Your task to perform on an android device: How do I get to the nearest Starbucks? Image 0: 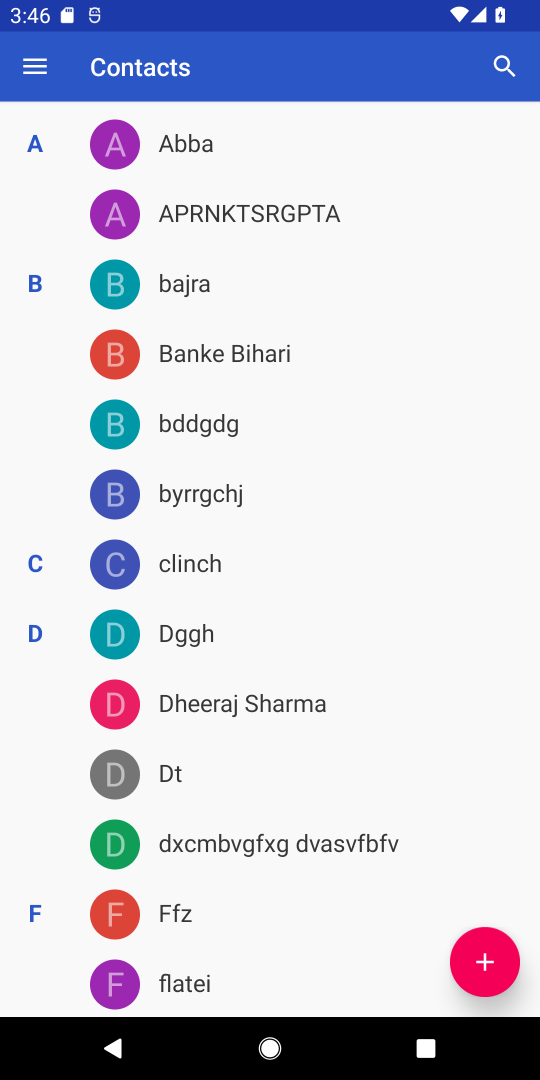
Step 0: press home button
Your task to perform on an android device: How do I get to the nearest Starbucks? Image 1: 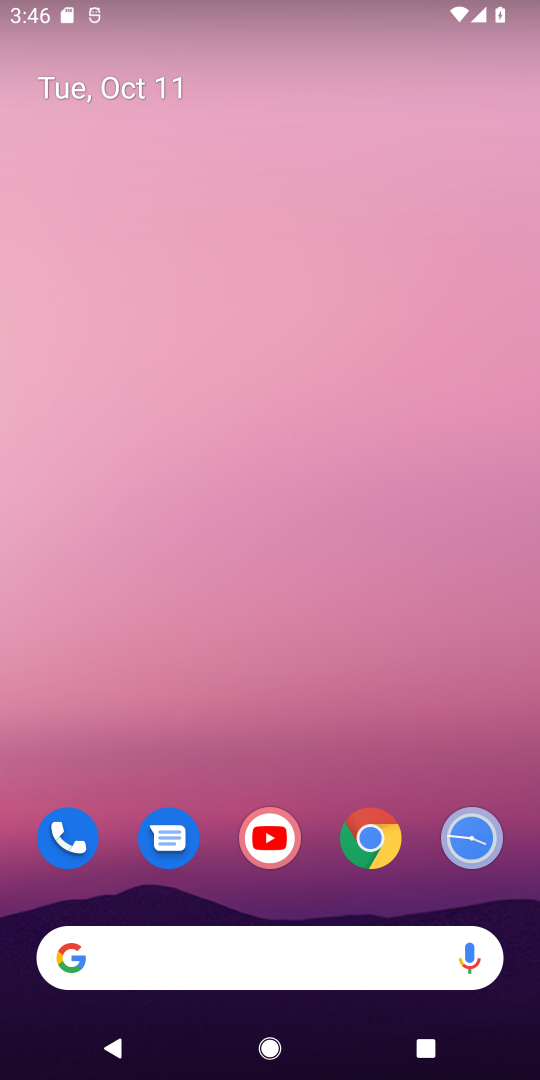
Step 1: click (260, 948)
Your task to perform on an android device: How do I get to the nearest Starbucks? Image 2: 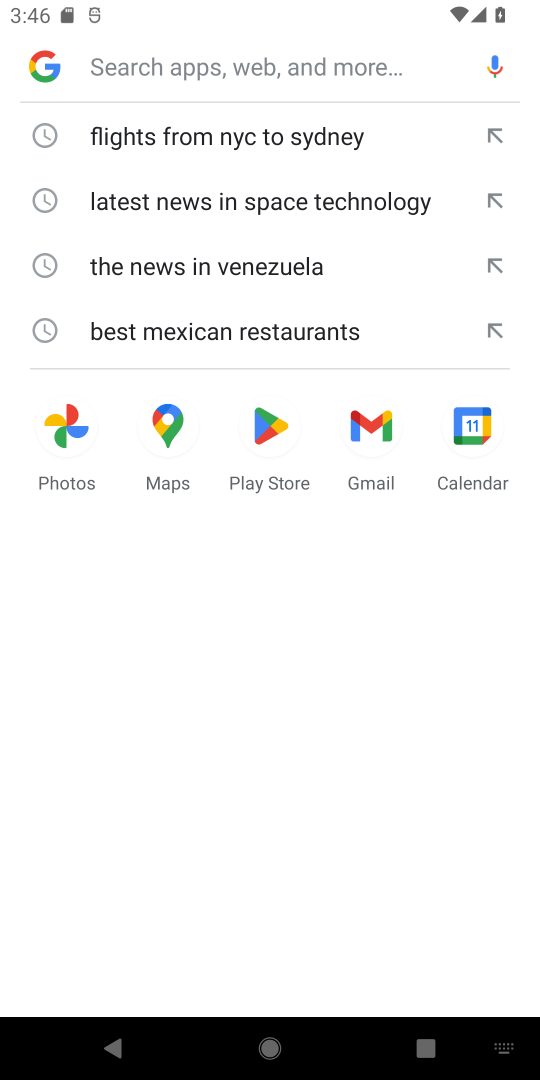
Step 2: type "nearest Starbucks"
Your task to perform on an android device: How do I get to the nearest Starbucks? Image 3: 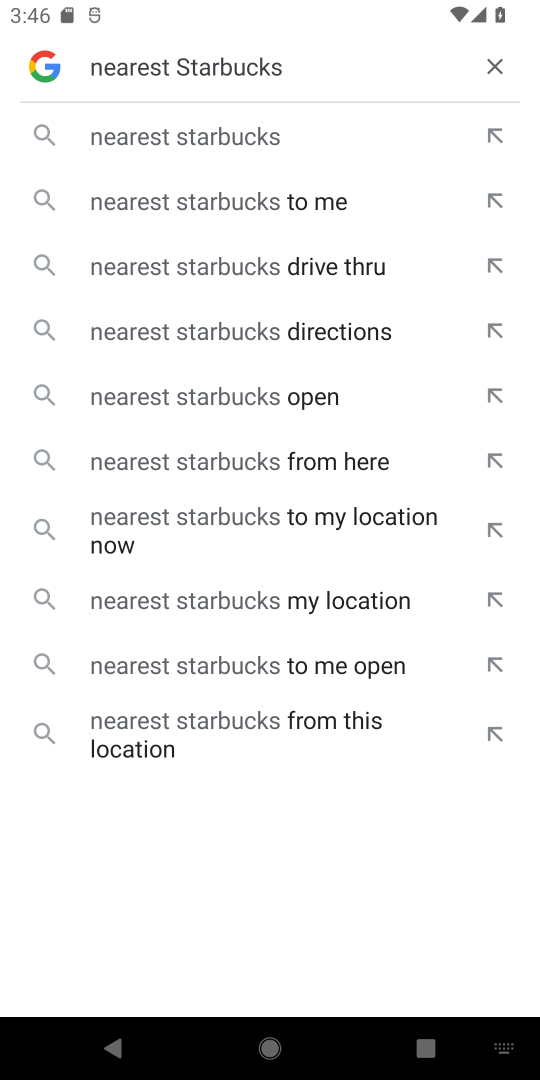
Step 3: click (229, 150)
Your task to perform on an android device: How do I get to the nearest Starbucks? Image 4: 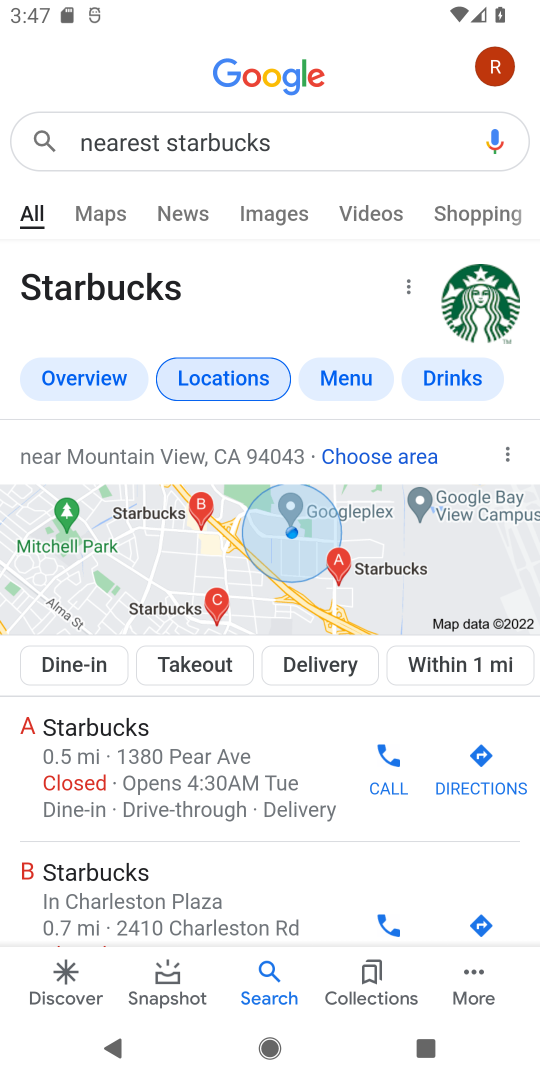
Step 4: task complete